Your task to perform on an android device: toggle notification dots Image 0: 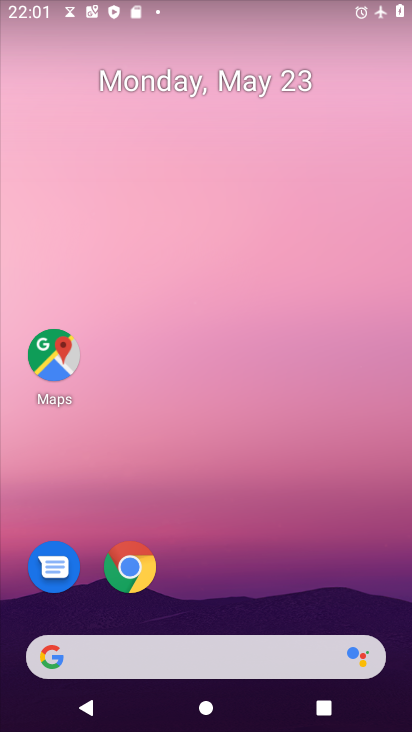
Step 0: drag from (205, 610) to (233, 216)
Your task to perform on an android device: toggle notification dots Image 1: 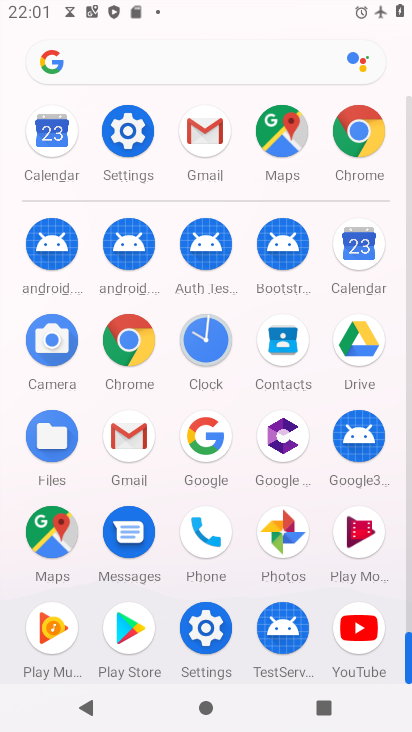
Step 1: click (119, 120)
Your task to perform on an android device: toggle notification dots Image 2: 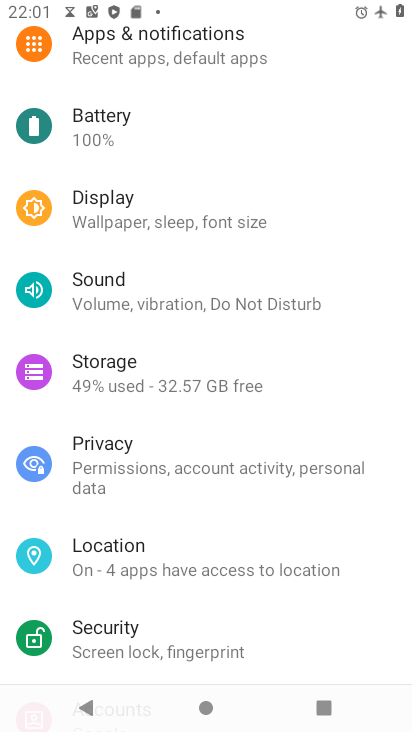
Step 2: drag from (272, 138) to (269, 647)
Your task to perform on an android device: toggle notification dots Image 3: 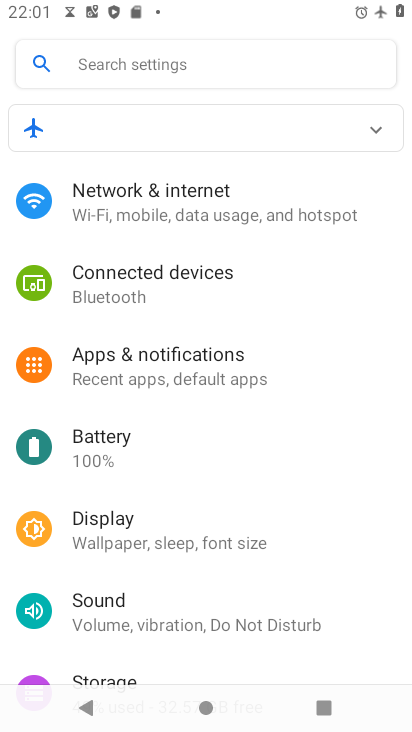
Step 3: click (264, 69)
Your task to perform on an android device: toggle notification dots Image 4: 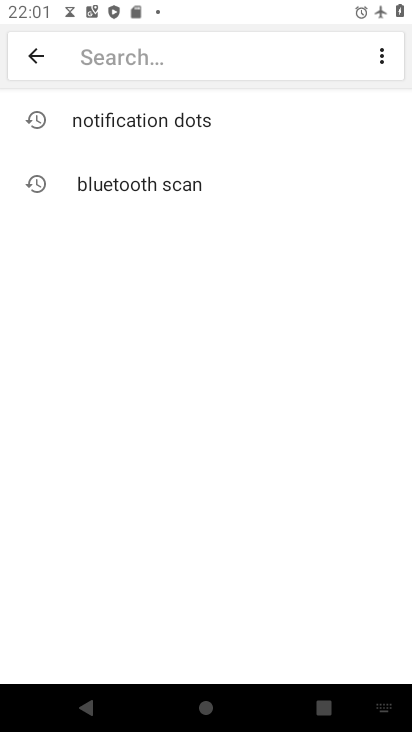
Step 4: type "notification dots"
Your task to perform on an android device: toggle notification dots Image 5: 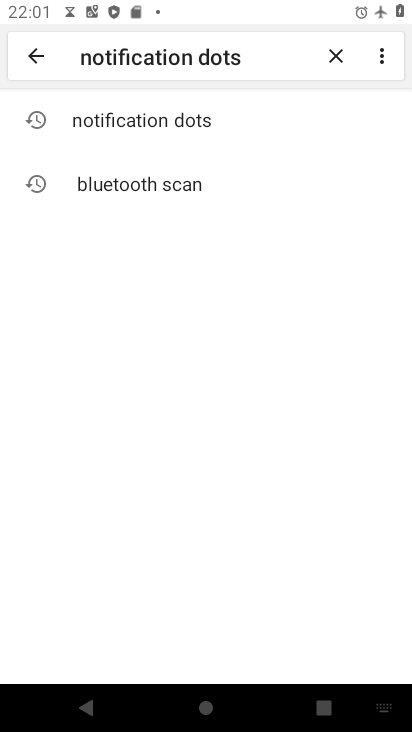
Step 5: click (164, 139)
Your task to perform on an android device: toggle notification dots Image 6: 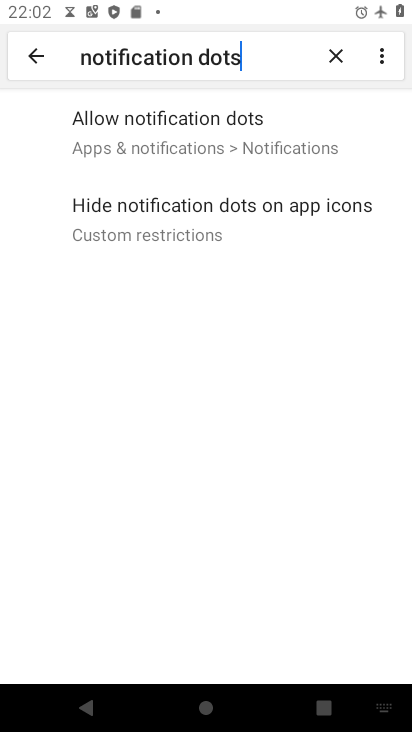
Step 6: click (181, 148)
Your task to perform on an android device: toggle notification dots Image 7: 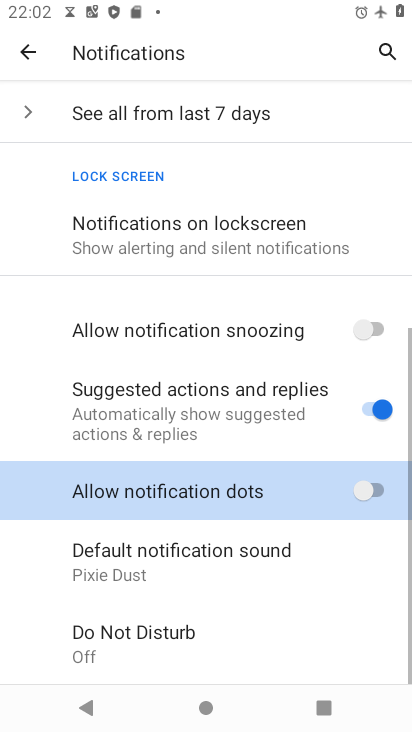
Step 7: click (373, 481)
Your task to perform on an android device: toggle notification dots Image 8: 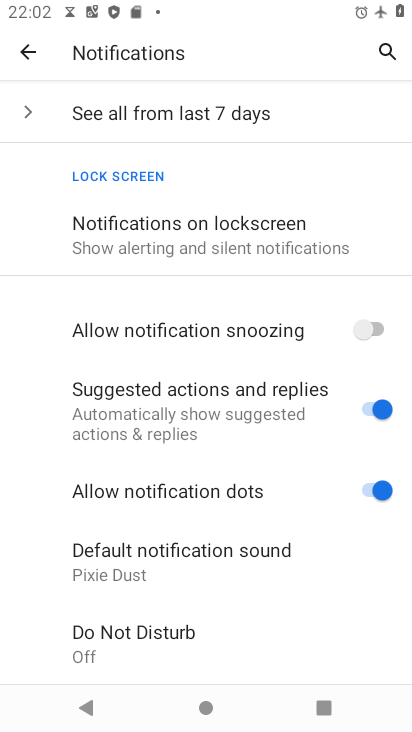
Step 8: task complete